Your task to perform on an android device: turn vacation reply on in the gmail app Image 0: 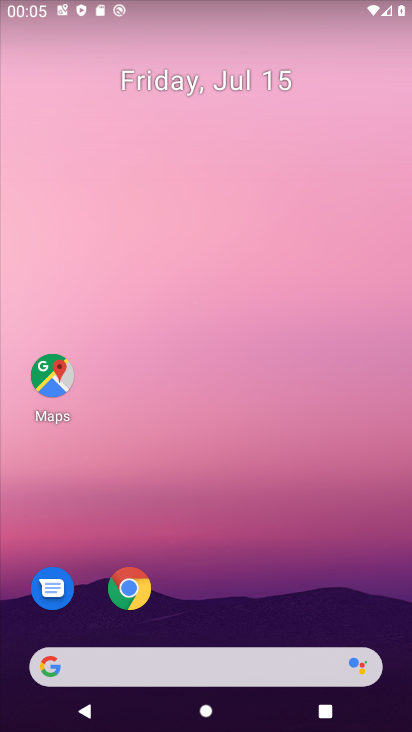
Step 0: drag from (253, 594) to (297, 63)
Your task to perform on an android device: turn vacation reply on in the gmail app Image 1: 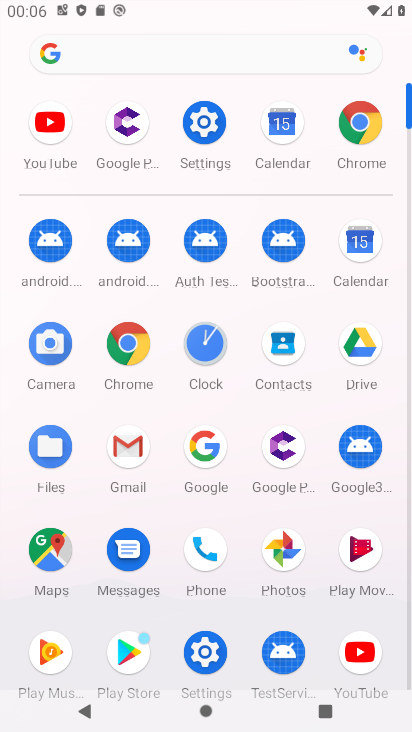
Step 1: click (129, 441)
Your task to perform on an android device: turn vacation reply on in the gmail app Image 2: 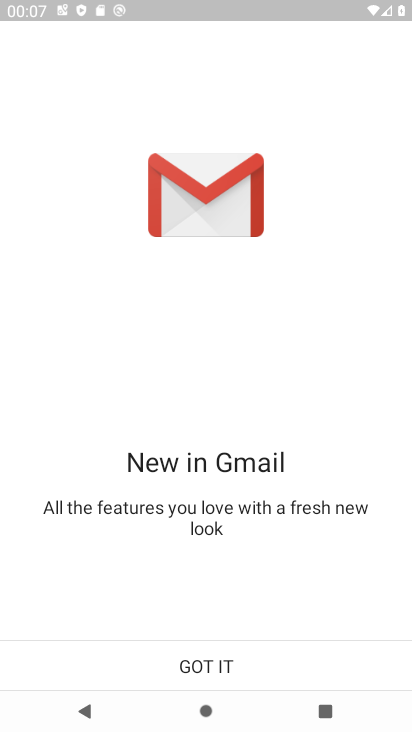
Step 2: click (228, 665)
Your task to perform on an android device: turn vacation reply on in the gmail app Image 3: 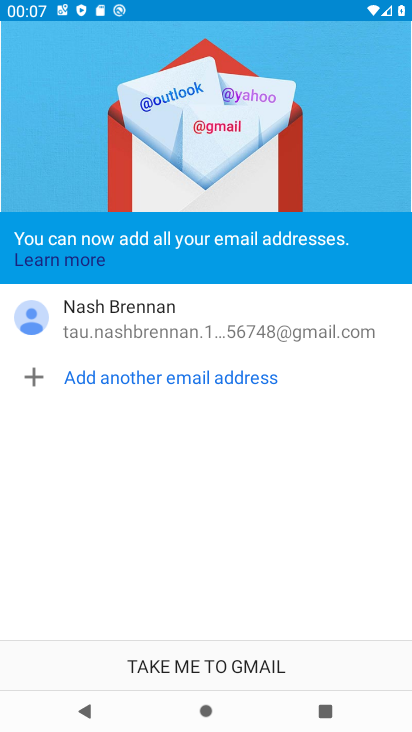
Step 3: click (227, 680)
Your task to perform on an android device: turn vacation reply on in the gmail app Image 4: 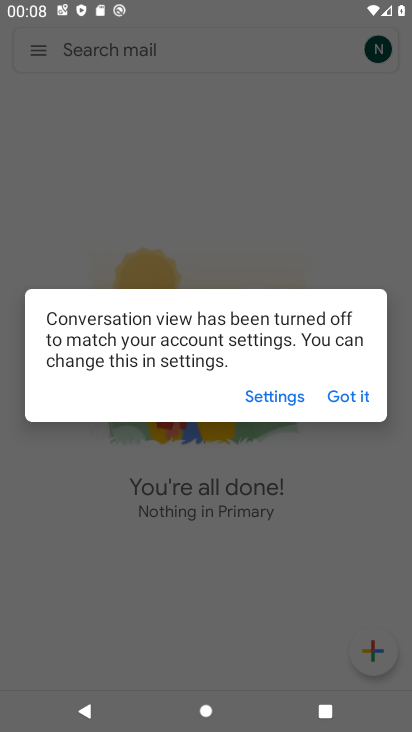
Step 4: click (330, 404)
Your task to perform on an android device: turn vacation reply on in the gmail app Image 5: 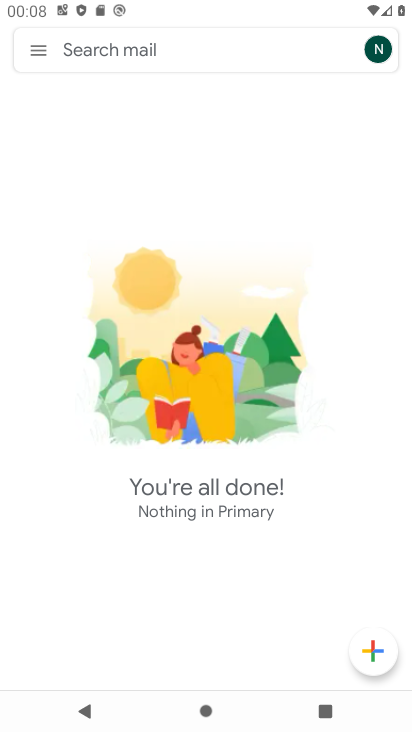
Step 5: click (26, 45)
Your task to perform on an android device: turn vacation reply on in the gmail app Image 6: 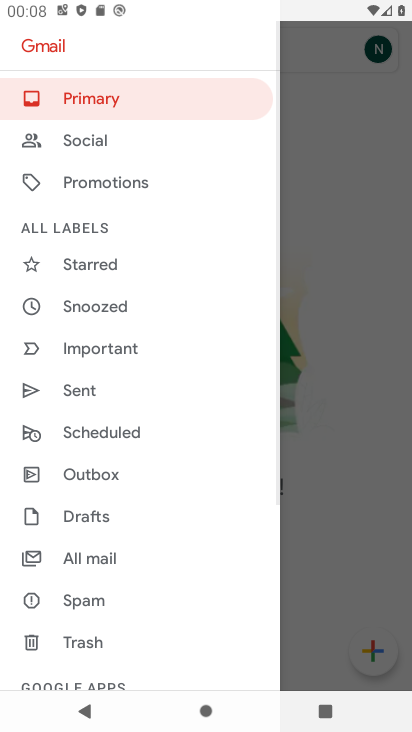
Step 6: drag from (177, 600) to (177, 187)
Your task to perform on an android device: turn vacation reply on in the gmail app Image 7: 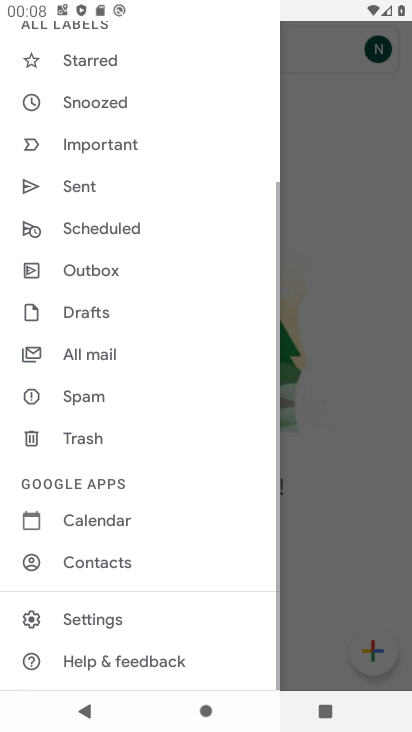
Step 7: click (94, 620)
Your task to perform on an android device: turn vacation reply on in the gmail app Image 8: 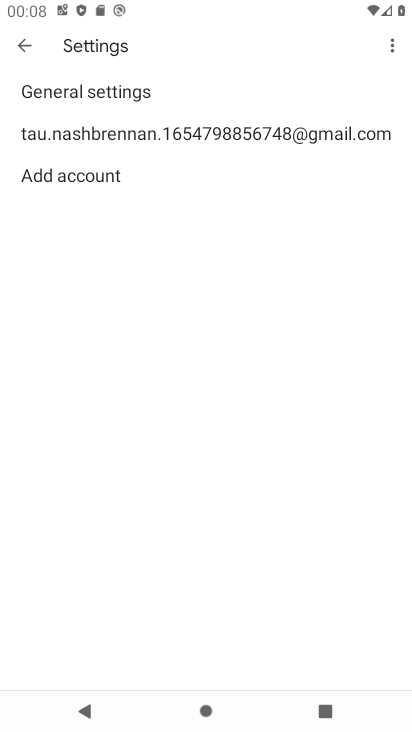
Step 8: click (113, 134)
Your task to perform on an android device: turn vacation reply on in the gmail app Image 9: 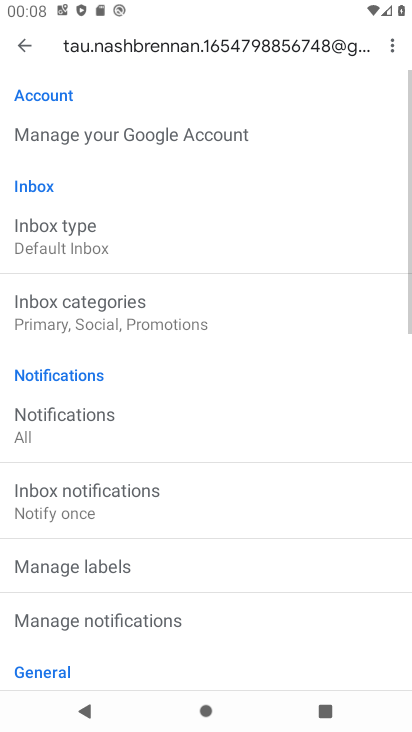
Step 9: drag from (77, 618) to (209, 78)
Your task to perform on an android device: turn vacation reply on in the gmail app Image 10: 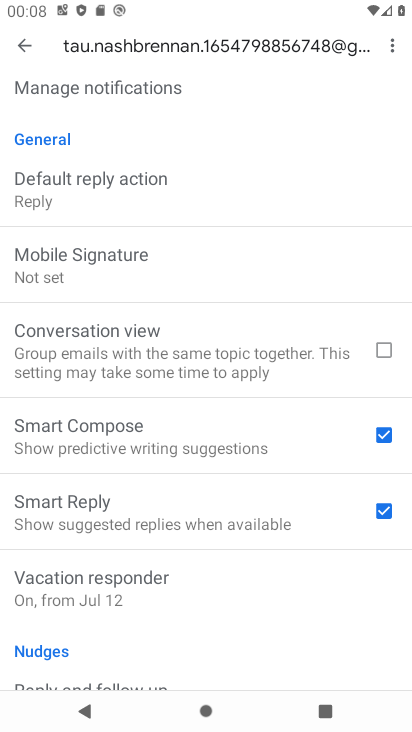
Step 10: click (103, 583)
Your task to perform on an android device: turn vacation reply on in the gmail app Image 11: 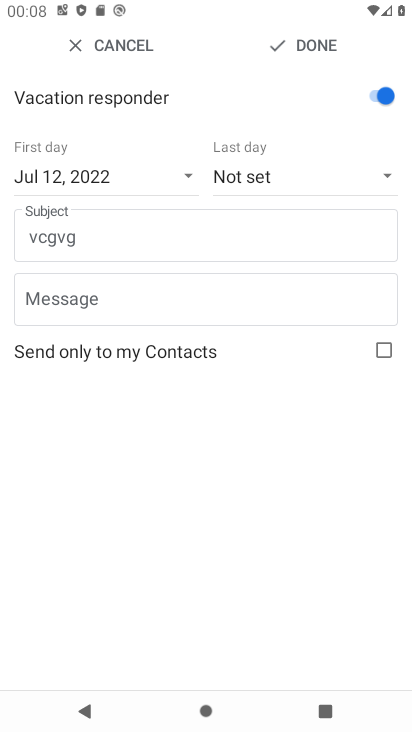
Step 11: task complete